Your task to perform on an android device: check battery use Image 0: 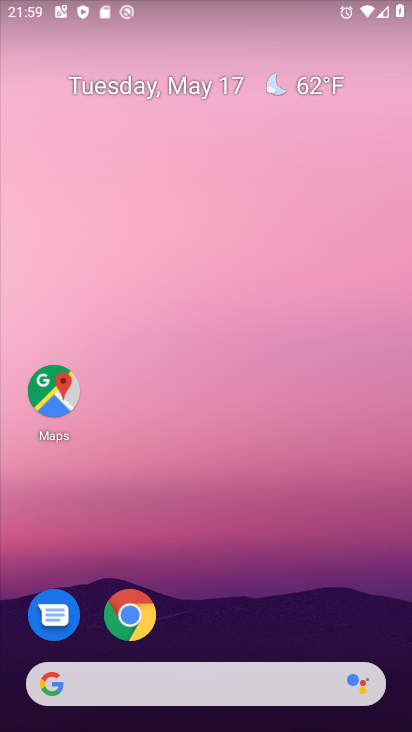
Step 0: drag from (240, 124) to (253, 0)
Your task to perform on an android device: check battery use Image 1: 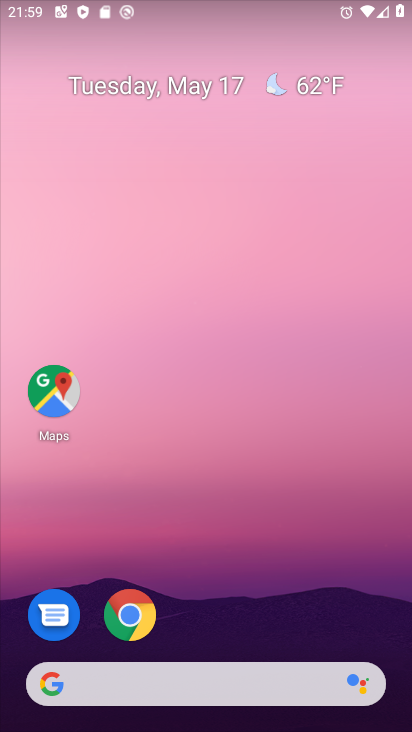
Step 1: drag from (205, 599) to (188, 0)
Your task to perform on an android device: check battery use Image 2: 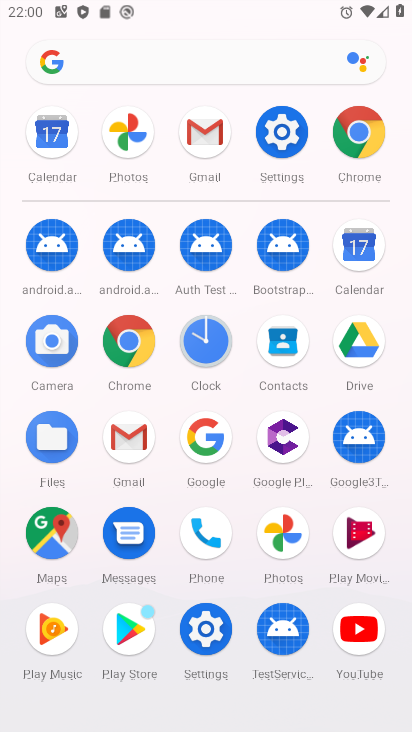
Step 2: click (273, 109)
Your task to perform on an android device: check battery use Image 3: 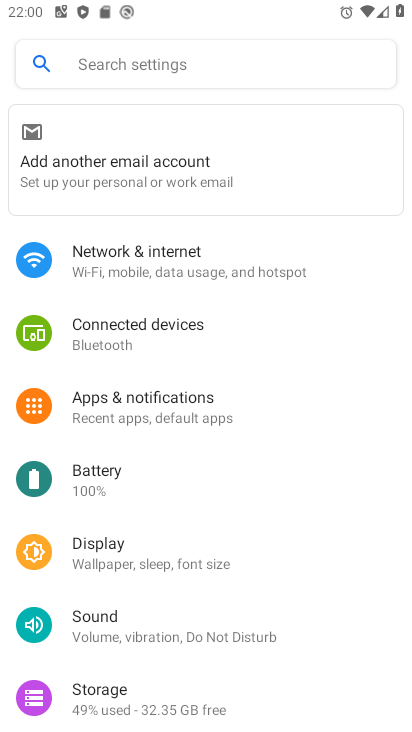
Step 3: click (92, 487)
Your task to perform on an android device: check battery use Image 4: 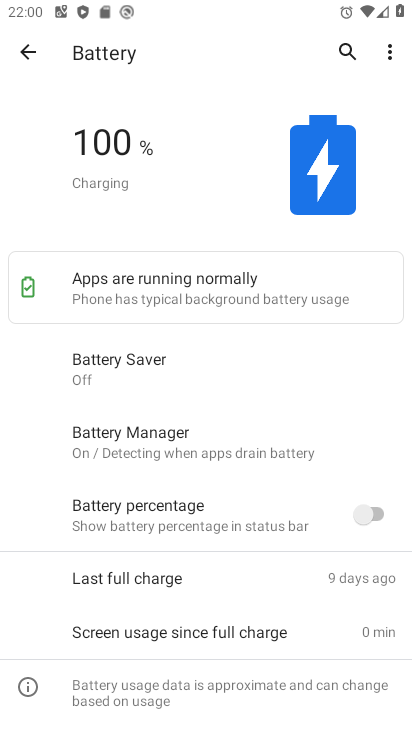
Step 4: task complete